Your task to perform on an android device: Open the map Image 0: 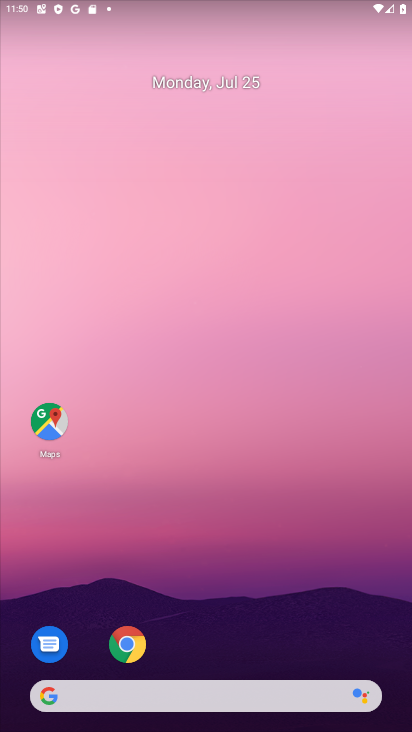
Step 0: click (47, 421)
Your task to perform on an android device: Open the map Image 1: 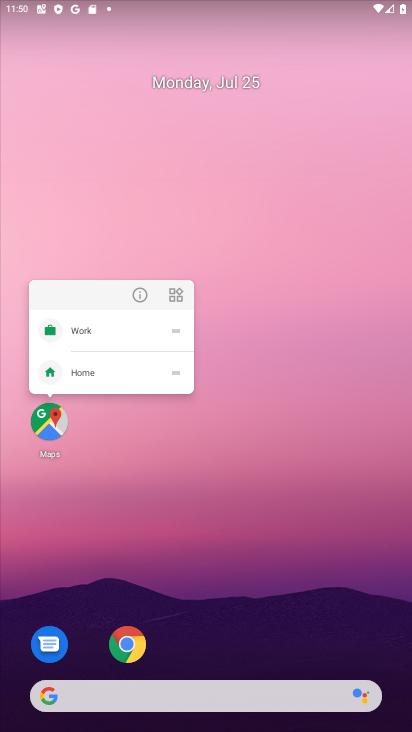
Step 1: click (48, 423)
Your task to perform on an android device: Open the map Image 2: 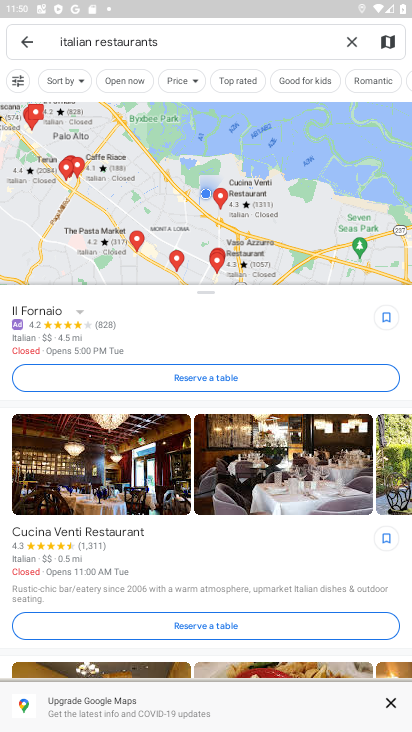
Step 2: task complete